Your task to perform on an android device: turn notification dots off Image 0: 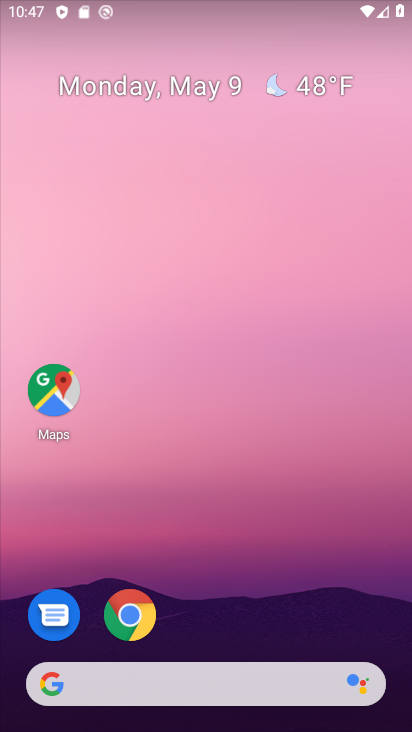
Step 0: drag from (202, 537) to (295, 68)
Your task to perform on an android device: turn notification dots off Image 1: 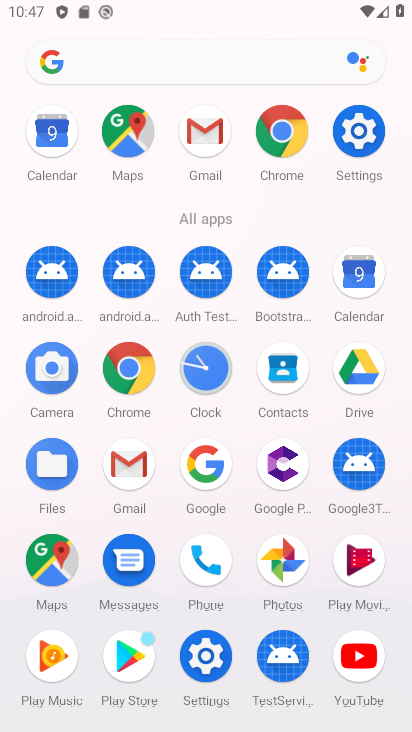
Step 1: click (361, 135)
Your task to perform on an android device: turn notification dots off Image 2: 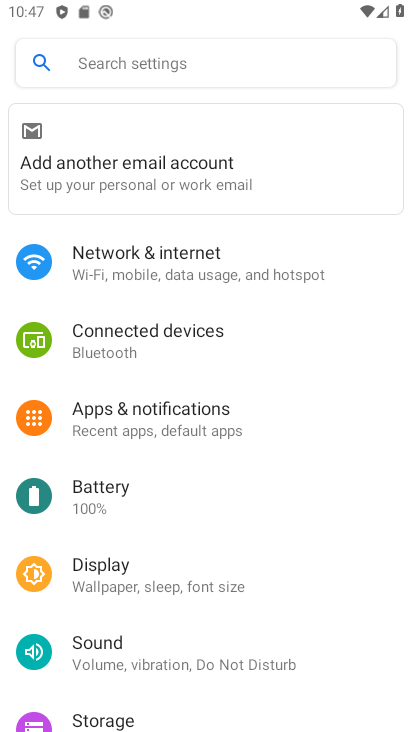
Step 2: click (155, 416)
Your task to perform on an android device: turn notification dots off Image 3: 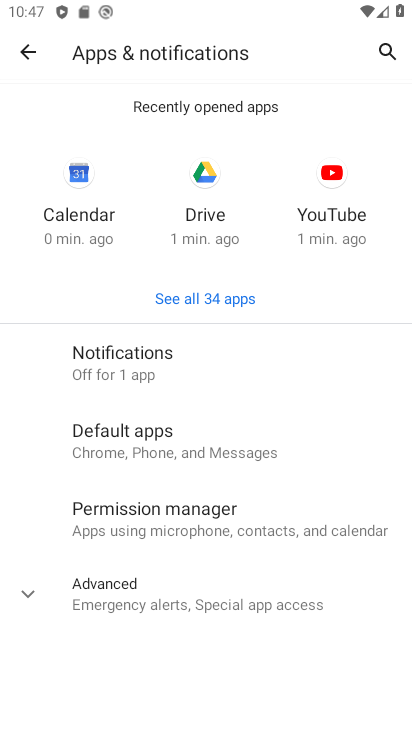
Step 3: click (191, 371)
Your task to perform on an android device: turn notification dots off Image 4: 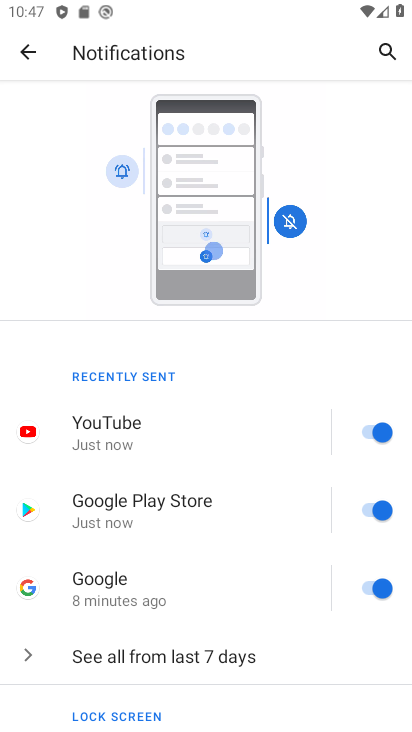
Step 4: drag from (189, 689) to (250, 275)
Your task to perform on an android device: turn notification dots off Image 5: 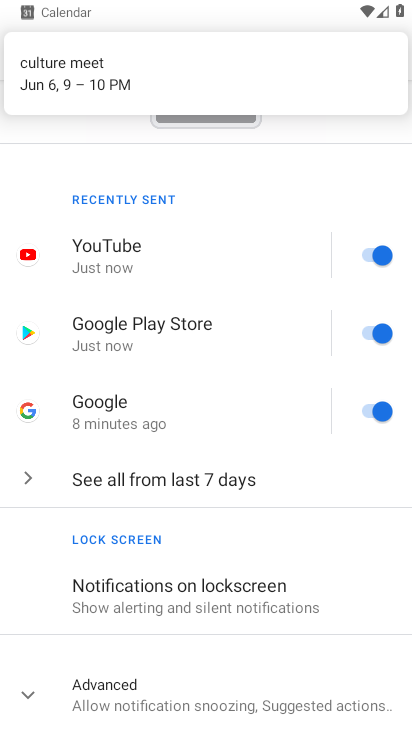
Step 5: click (150, 699)
Your task to perform on an android device: turn notification dots off Image 6: 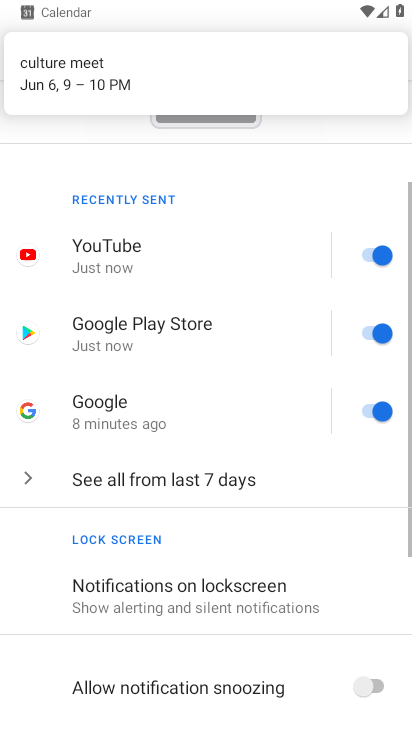
Step 6: drag from (194, 629) to (289, 200)
Your task to perform on an android device: turn notification dots off Image 7: 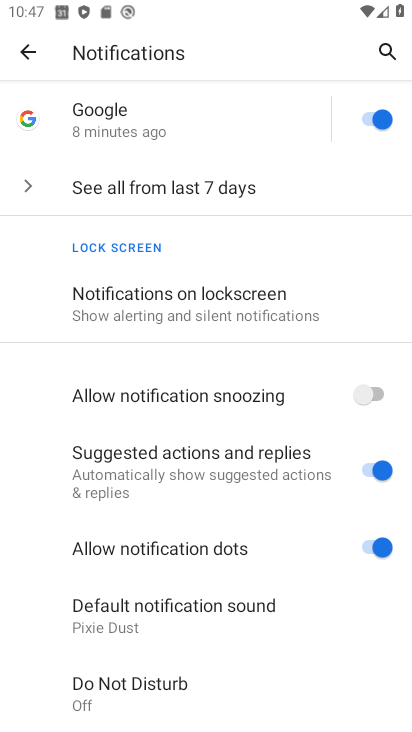
Step 7: click (370, 543)
Your task to perform on an android device: turn notification dots off Image 8: 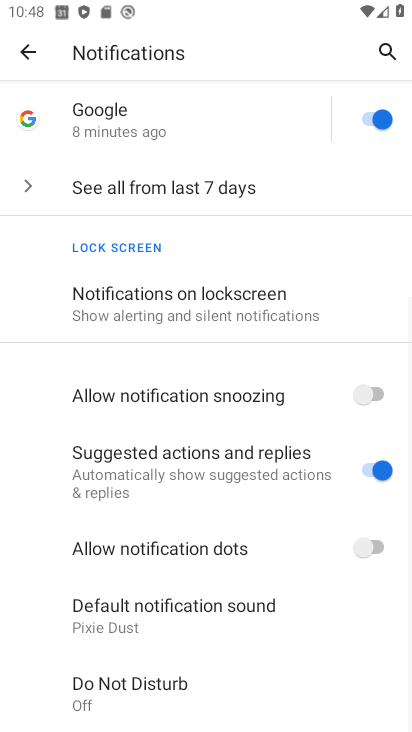
Step 8: task complete